Your task to perform on an android device: open sync settings in chrome Image 0: 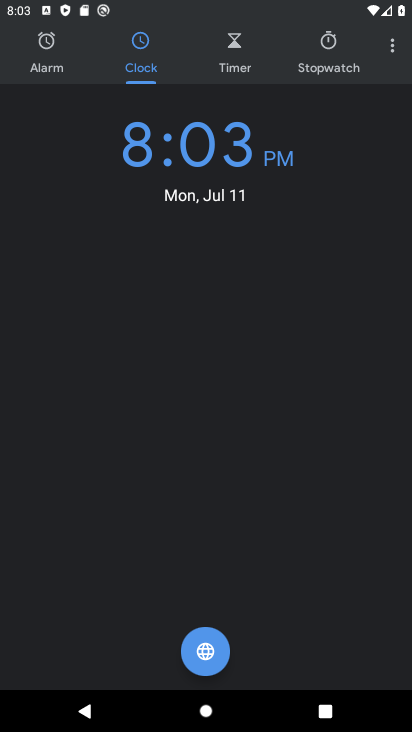
Step 0: press home button
Your task to perform on an android device: open sync settings in chrome Image 1: 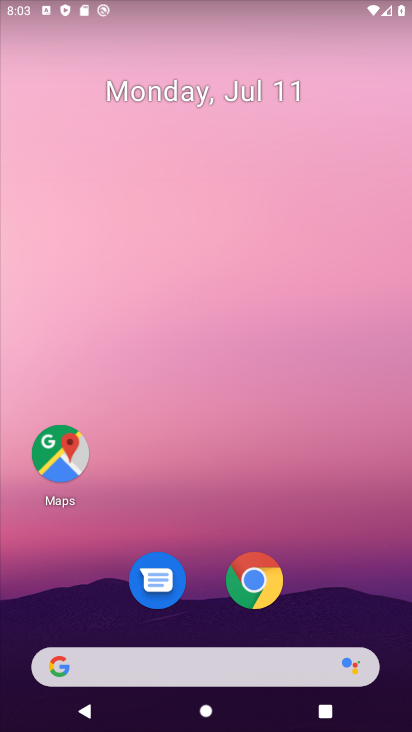
Step 1: click (257, 577)
Your task to perform on an android device: open sync settings in chrome Image 2: 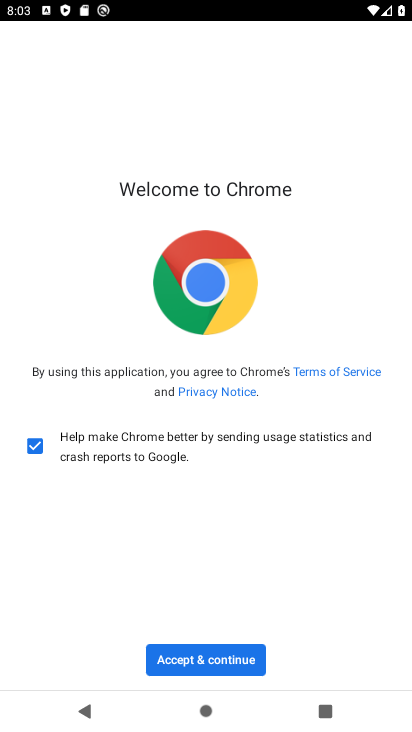
Step 2: click (228, 658)
Your task to perform on an android device: open sync settings in chrome Image 3: 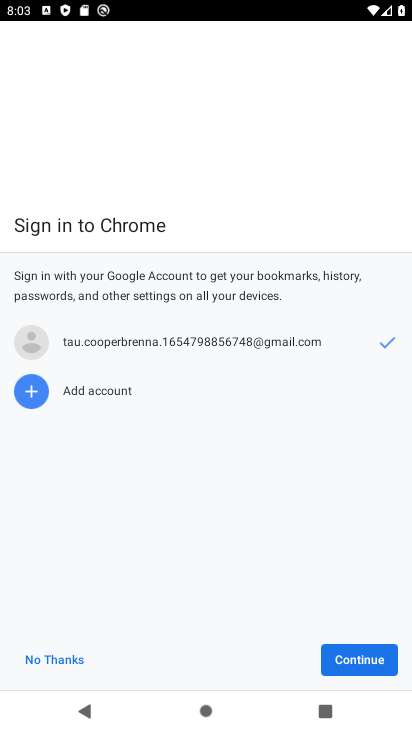
Step 3: click (362, 653)
Your task to perform on an android device: open sync settings in chrome Image 4: 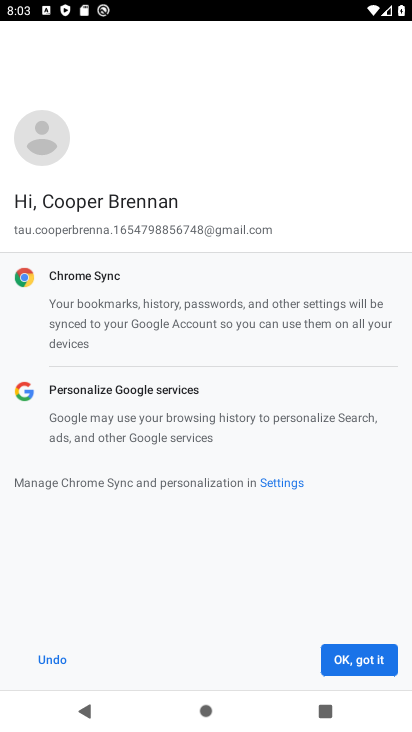
Step 4: click (360, 660)
Your task to perform on an android device: open sync settings in chrome Image 5: 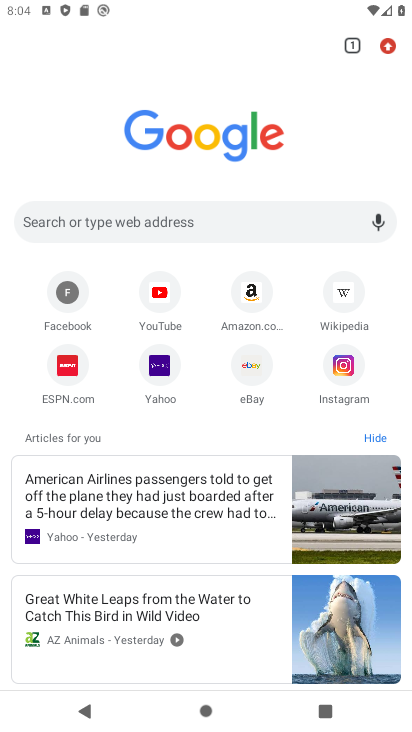
Step 5: click (386, 46)
Your task to perform on an android device: open sync settings in chrome Image 6: 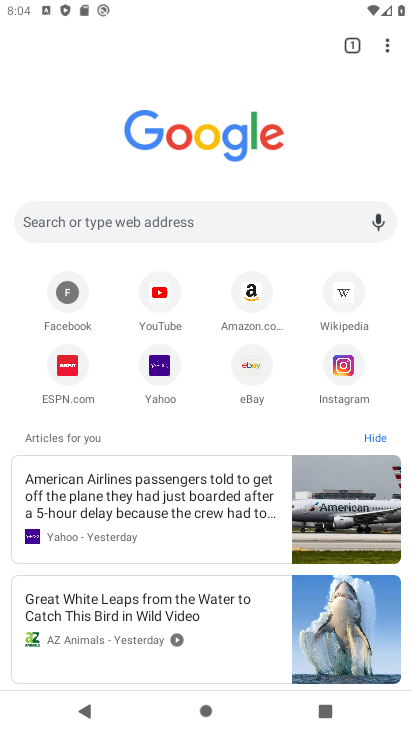
Step 6: click (386, 47)
Your task to perform on an android device: open sync settings in chrome Image 7: 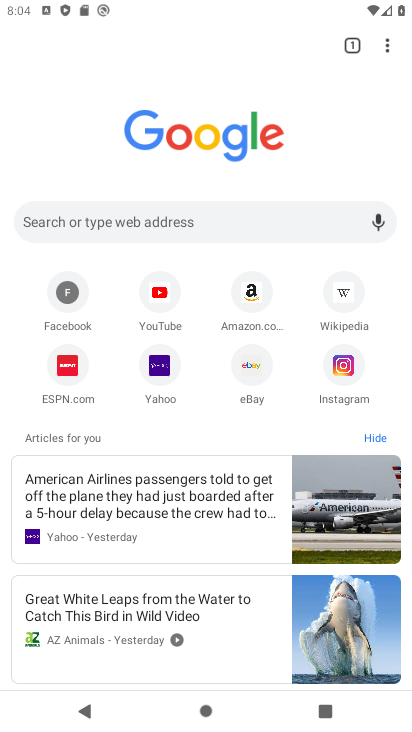
Step 7: click (386, 47)
Your task to perform on an android device: open sync settings in chrome Image 8: 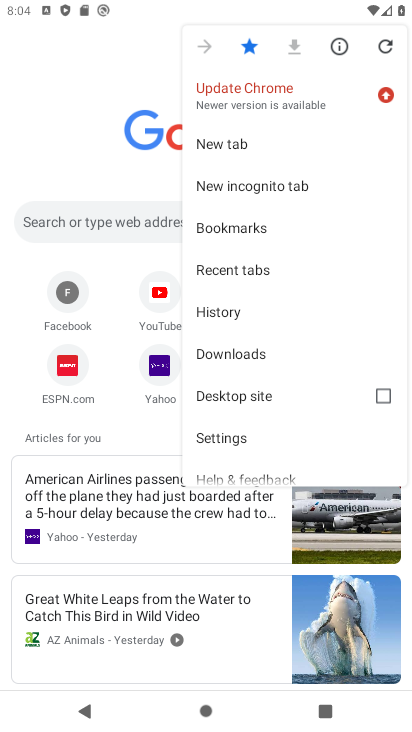
Step 8: click (242, 439)
Your task to perform on an android device: open sync settings in chrome Image 9: 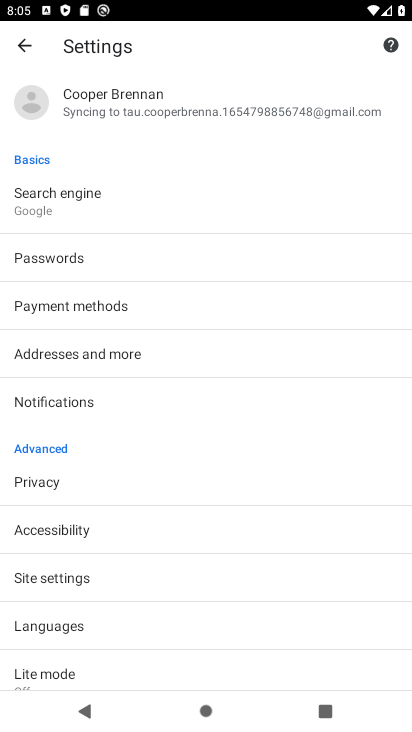
Step 9: click (123, 100)
Your task to perform on an android device: open sync settings in chrome Image 10: 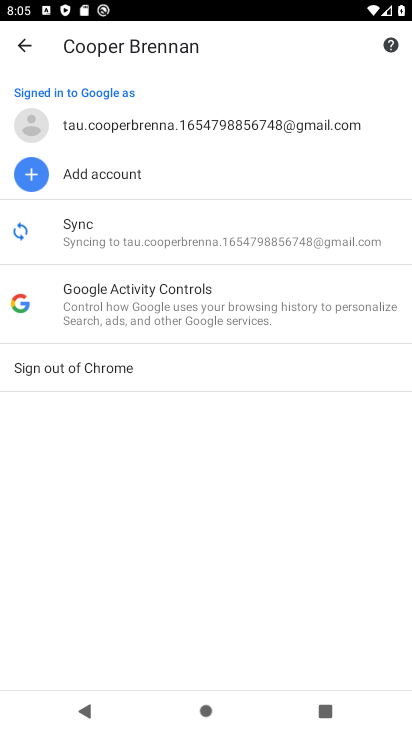
Step 10: click (79, 239)
Your task to perform on an android device: open sync settings in chrome Image 11: 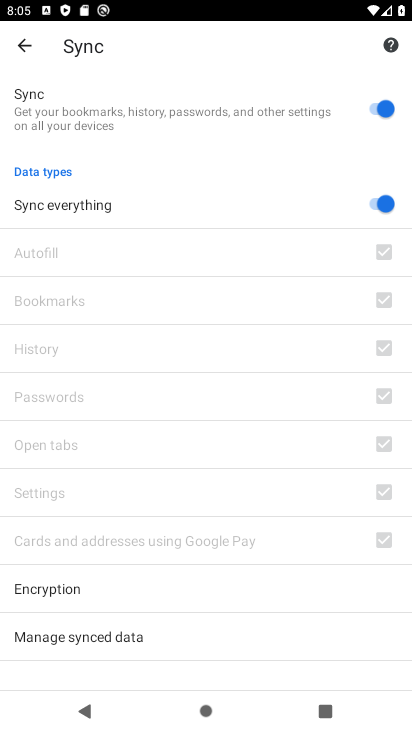
Step 11: task complete